Your task to perform on an android device: Open network settings Image 0: 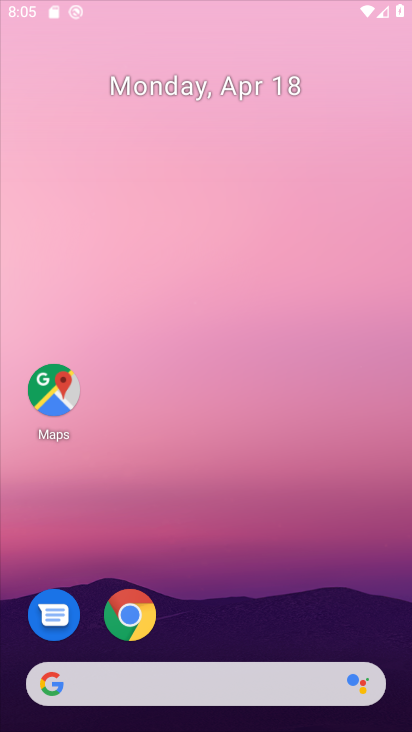
Step 0: drag from (351, 451) to (353, 66)
Your task to perform on an android device: Open network settings Image 1: 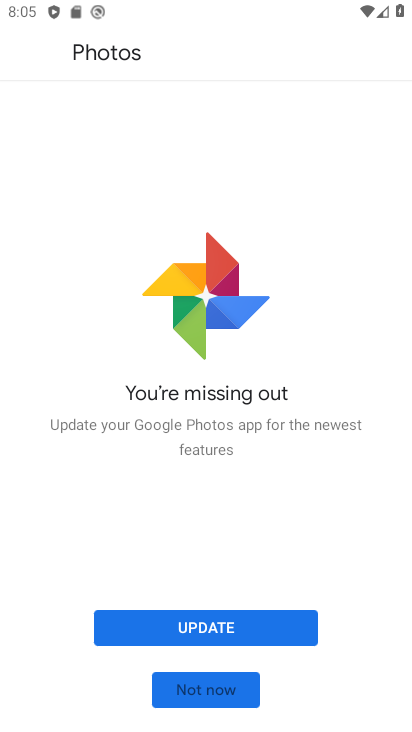
Step 1: press home button
Your task to perform on an android device: Open network settings Image 2: 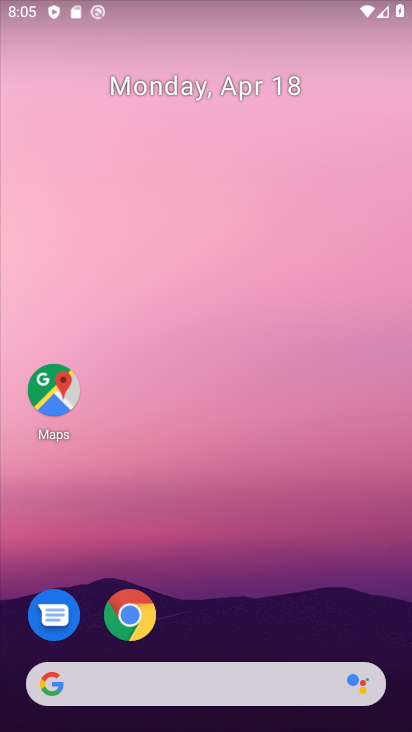
Step 2: drag from (228, 528) to (296, 72)
Your task to perform on an android device: Open network settings Image 3: 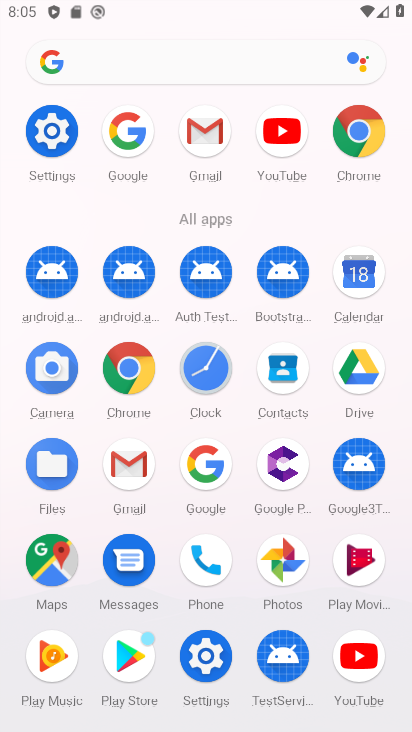
Step 3: click (50, 129)
Your task to perform on an android device: Open network settings Image 4: 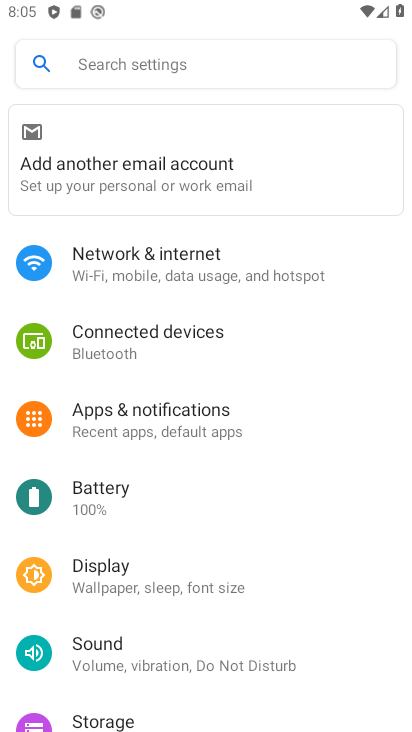
Step 4: click (156, 243)
Your task to perform on an android device: Open network settings Image 5: 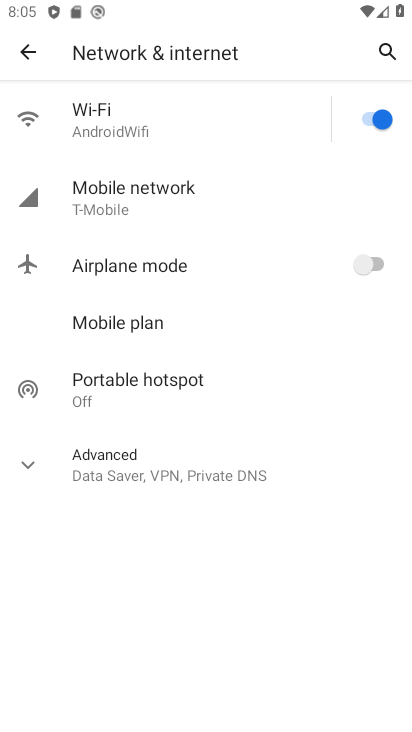
Step 5: task complete